Your task to perform on an android device: toggle notification dots Image 0: 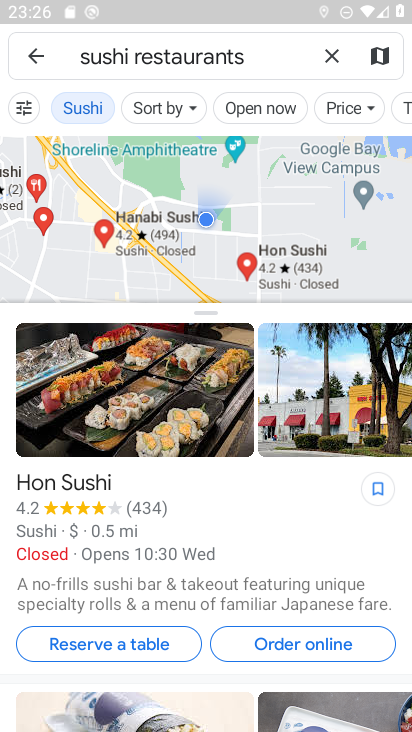
Step 0: press home button
Your task to perform on an android device: toggle notification dots Image 1: 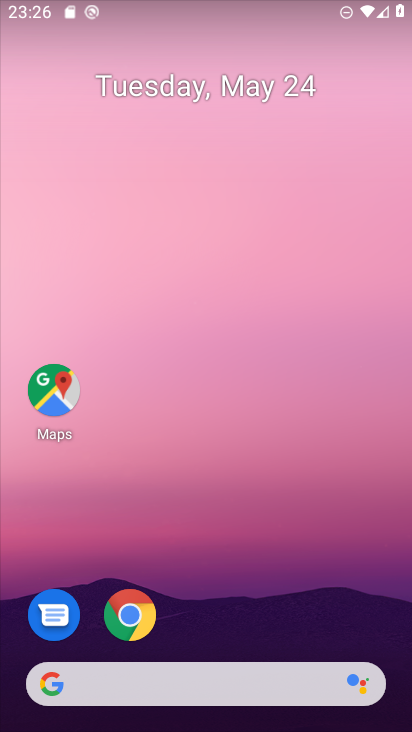
Step 1: drag from (205, 697) to (235, 144)
Your task to perform on an android device: toggle notification dots Image 2: 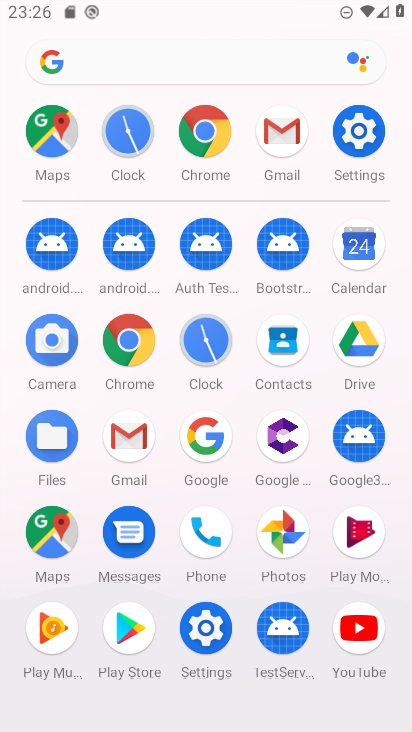
Step 2: click (364, 140)
Your task to perform on an android device: toggle notification dots Image 3: 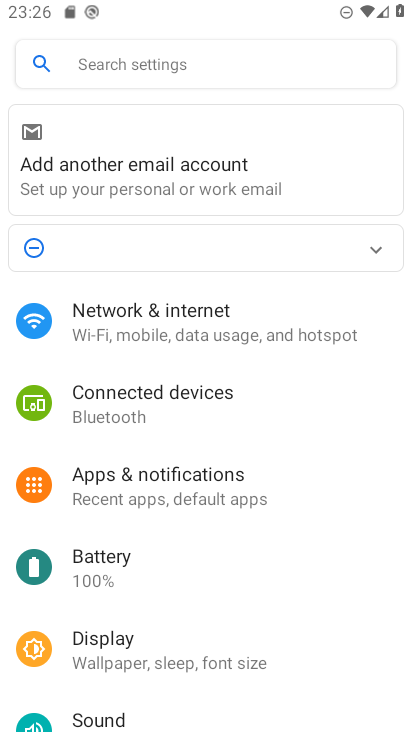
Step 3: click (178, 51)
Your task to perform on an android device: toggle notification dots Image 4: 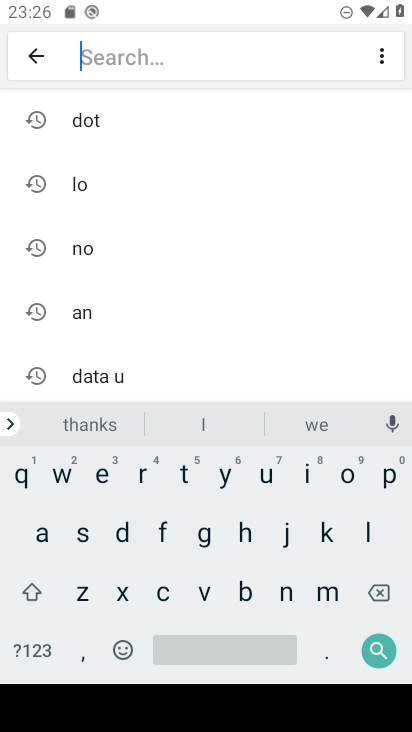
Step 4: click (122, 551)
Your task to perform on an android device: toggle notification dots Image 5: 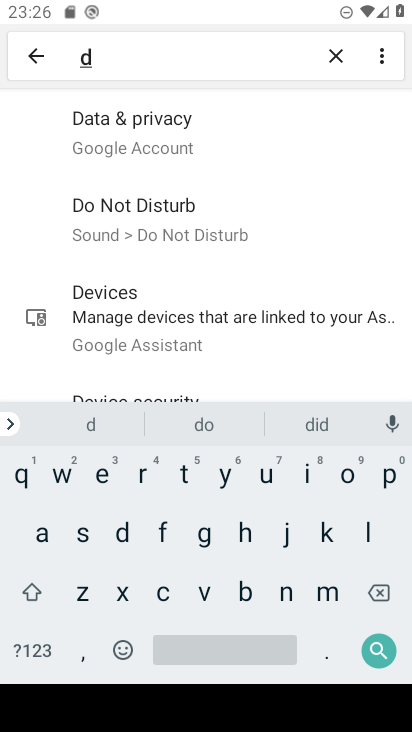
Step 5: click (347, 477)
Your task to perform on an android device: toggle notification dots Image 6: 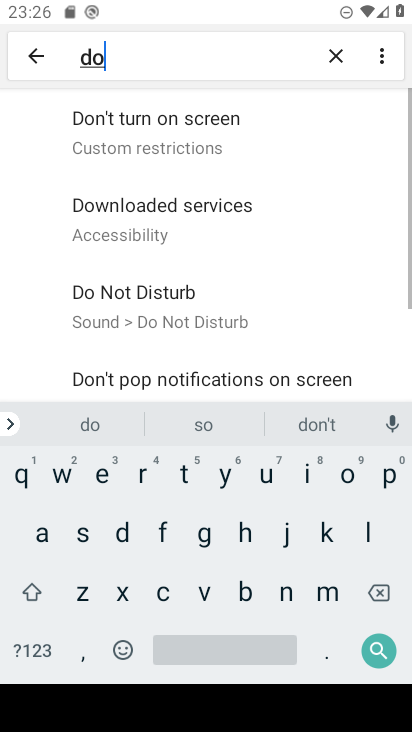
Step 6: click (183, 473)
Your task to perform on an android device: toggle notification dots Image 7: 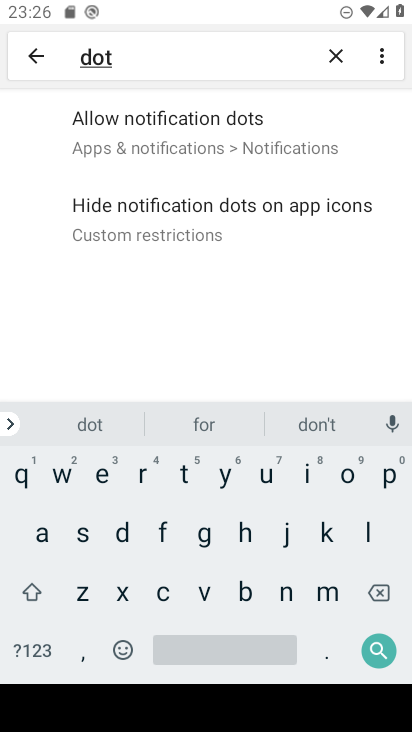
Step 7: click (179, 142)
Your task to perform on an android device: toggle notification dots Image 8: 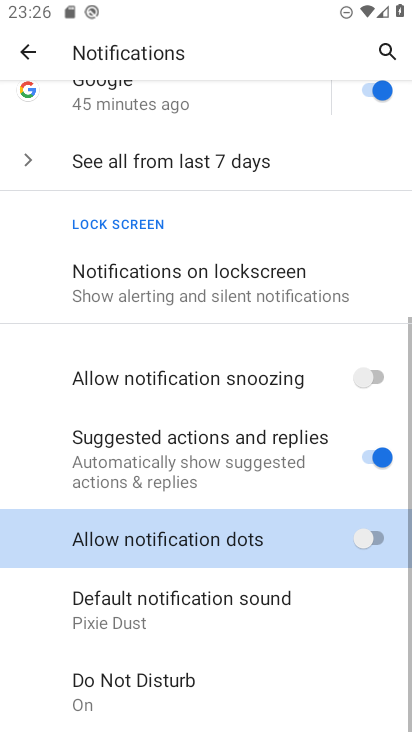
Step 8: task complete